Your task to perform on an android device: turn on showing notifications on the lock screen Image 0: 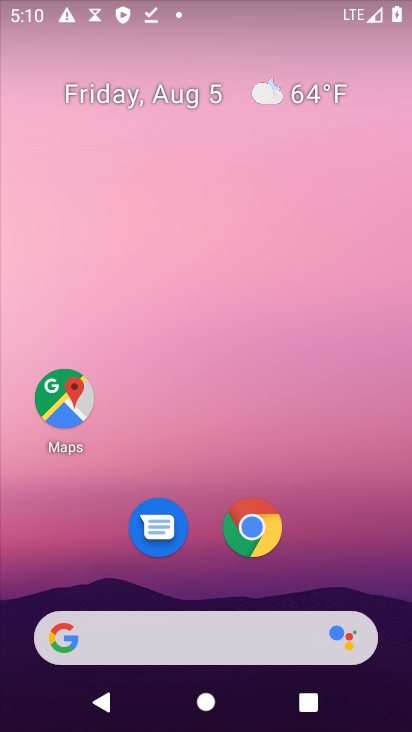
Step 0: click (270, 702)
Your task to perform on an android device: turn on showing notifications on the lock screen Image 1: 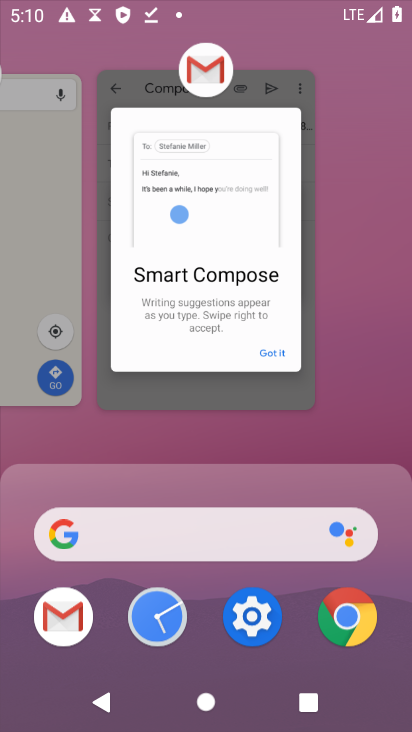
Step 1: click (224, 395)
Your task to perform on an android device: turn on showing notifications on the lock screen Image 2: 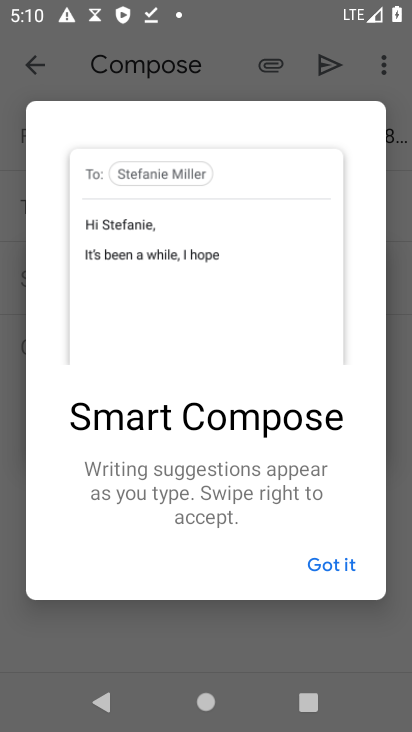
Step 2: press home button
Your task to perform on an android device: turn on showing notifications on the lock screen Image 3: 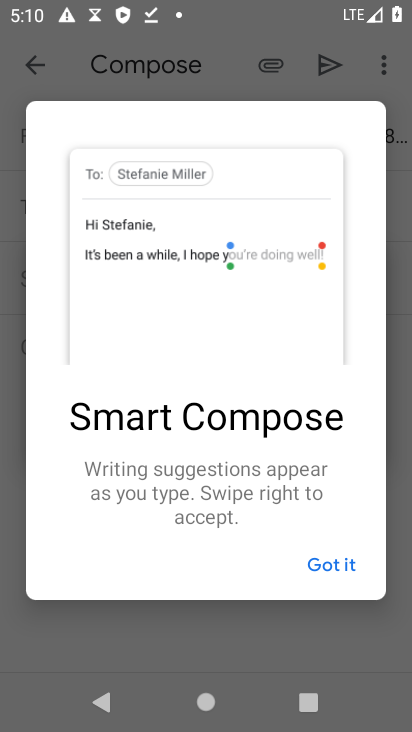
Step 3: press home button
Your task to perform on an android device: turn on showing notifications on the lock screen Image 4: 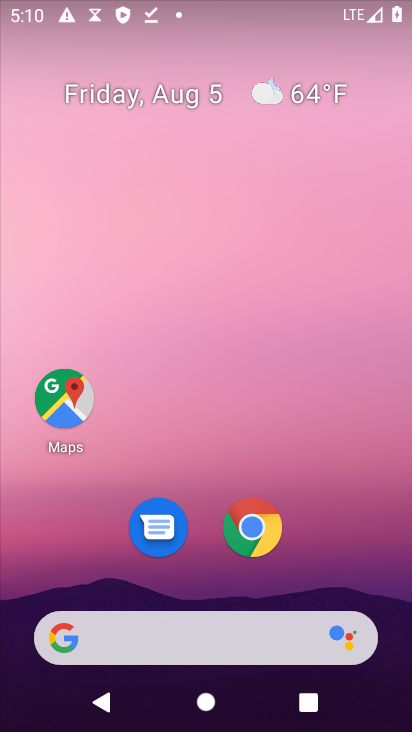
Step 4: drag from (222, 596) to (254, 182)
Your task to perform on an android device: turn on showing notifications on the lock screen Image 5: 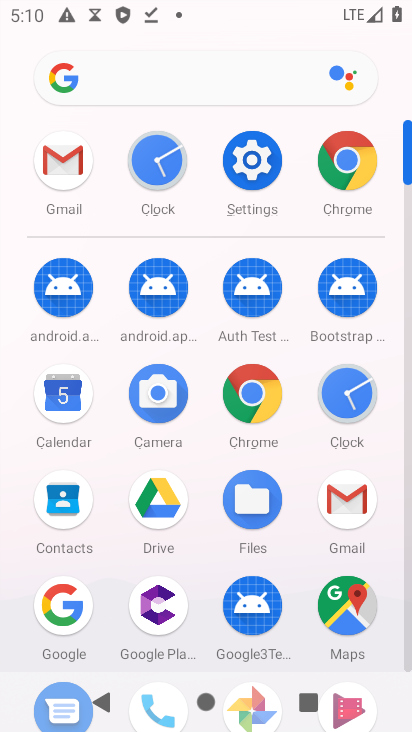
Step 5: click (252, 152)
Your task to perform on an android device: turn on showing notifications on the lock screen Image 6: 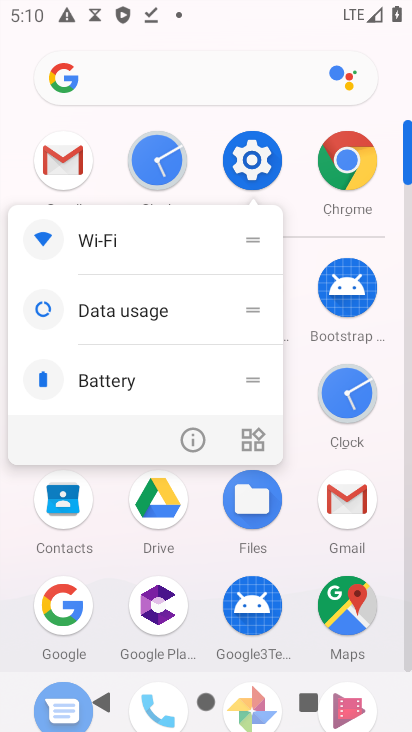
Step 6: click (193, 426)
Your task to perform on an android device: turn on showing notifications on the lock screen Image 7: 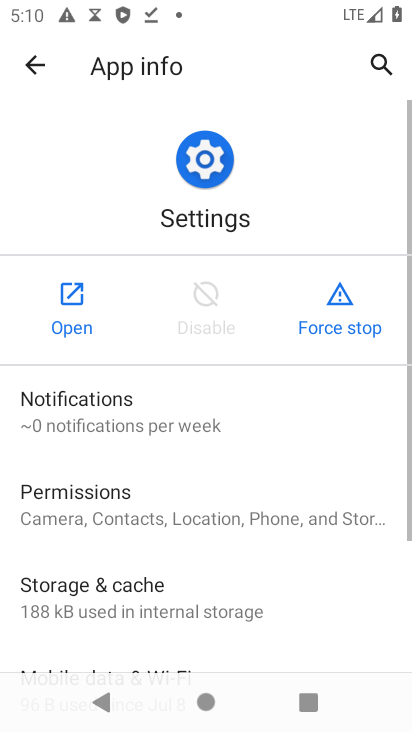
Step 7: click (87, 314)
Your task to perform on an android device: turn on showing notifications on the lock screen Image 8: 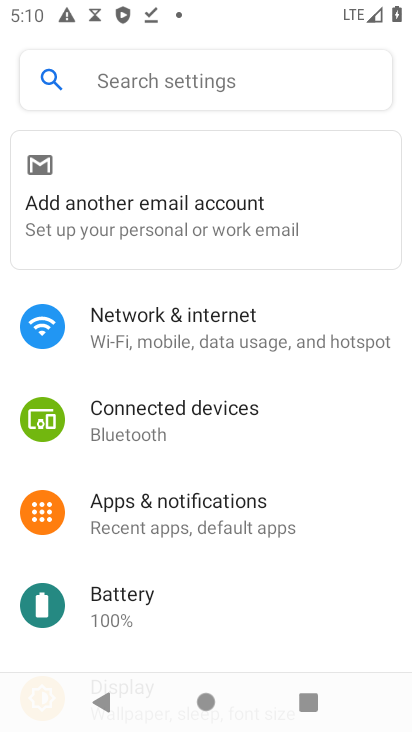
Step 8: drag from (174, 542) to (191, 176)
Your task to perform on an android device: turn on showing notifications on the lock screen Image 9: 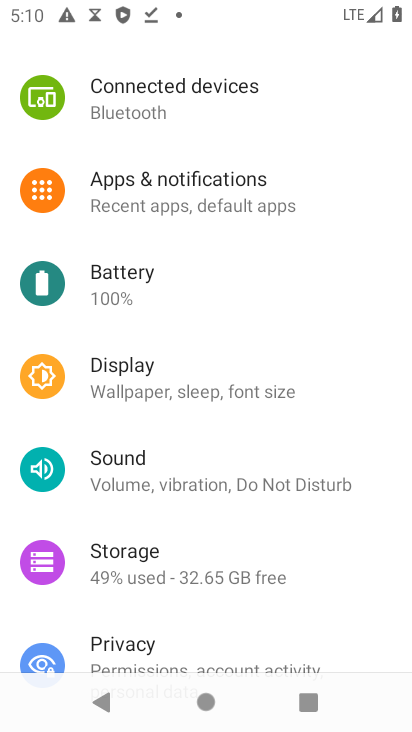
Step 9: click (183, 180)
Your task to perform on an android device: turn on showing notifications on the lock screen Image 10: 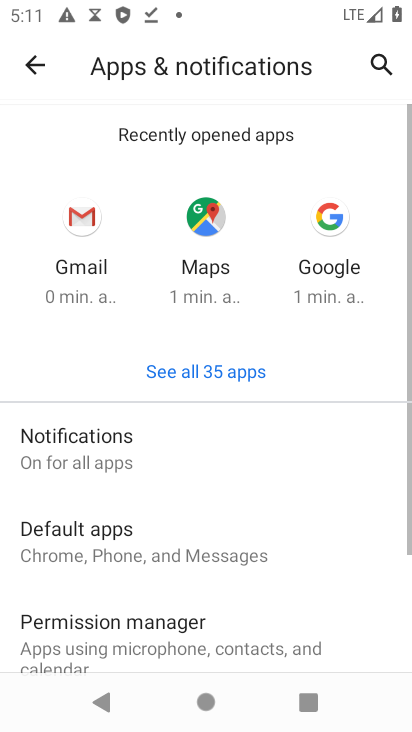
Step 10: click (138, 433)
Your task to perform on an android device: turn on showing notifications on the lock screen Image 11: 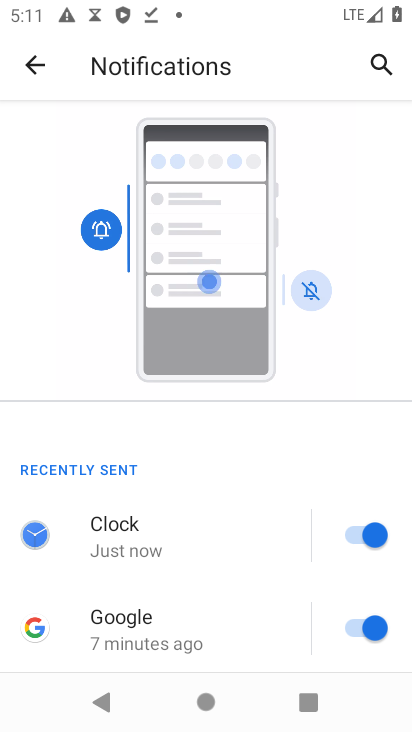
Step 11: drag from (206, 642) to (205, 401)
Your task to perform on an android device: turn on showing notifications on the lock screen Image 12: 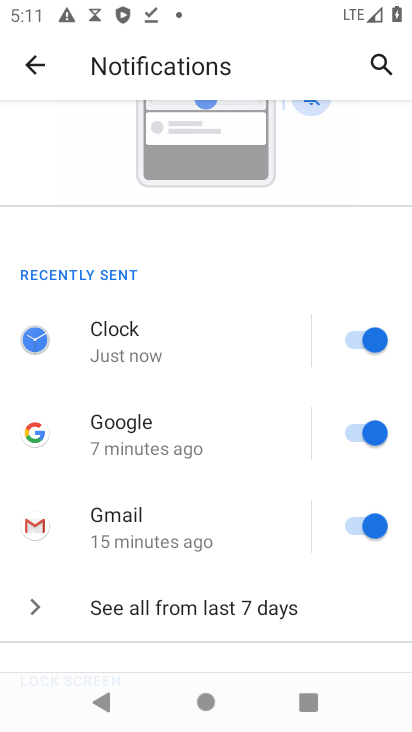
Step 12: drag from (222, 468) to (228, 406)
Your task to perform on an android device: turn on showing notifications on the lock screen Image 13: 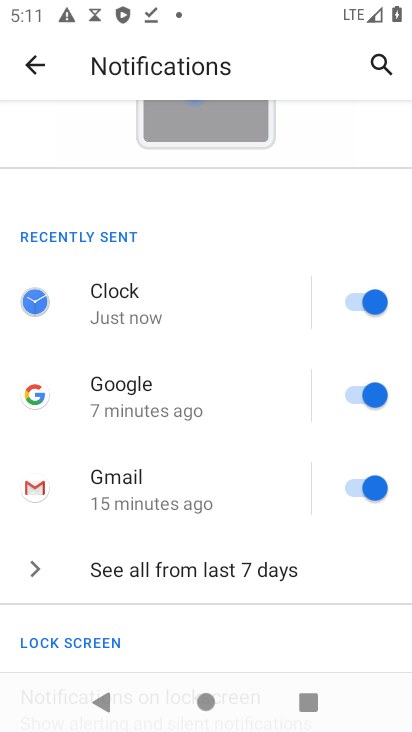
Step 13: drag from (207, 586) to (236, 338)
Your task to perform on an android device: turn on showing notifications on the lock screen Image 14: 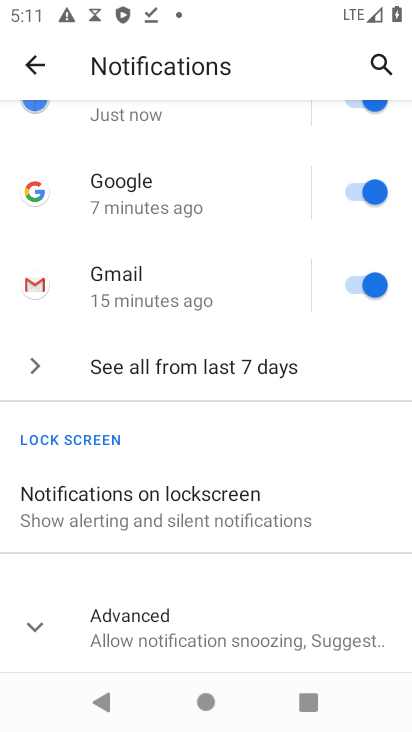
Step 14: drag from (181, 211) to (295, 696)
Your task to perform on an android device: turn on showing notifications on the lock screen Image 15: 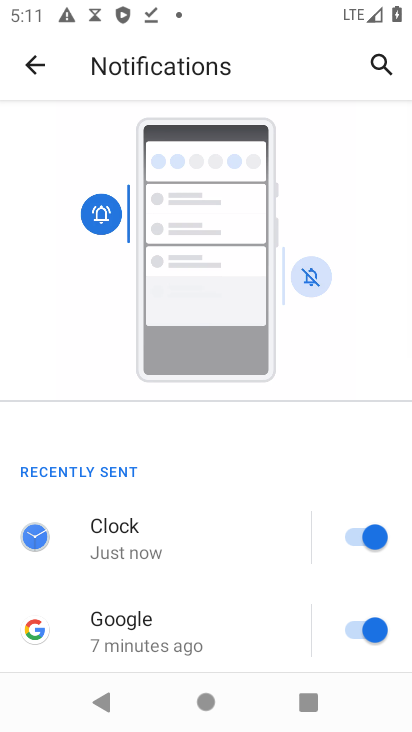
Step 15: drag from (207, 420) to (282, 135)
Your task to perform on an android device: turn on showing notifications on the lock screen Image 16: 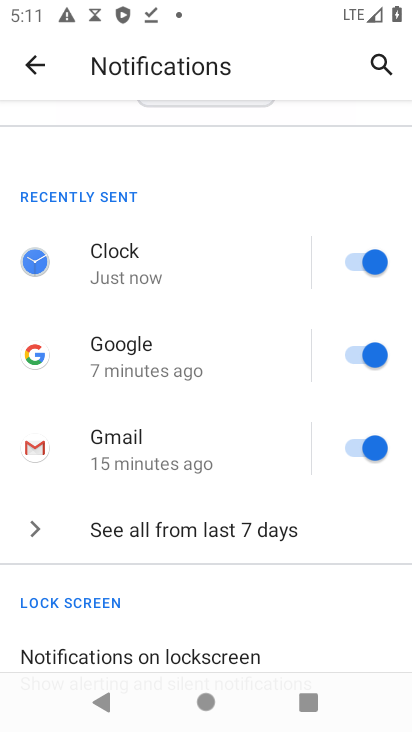
Step 16: drag from (209, 498) to (270, 73)
Your task to perform on an android device: turn on showing notifications on the lock screen Image 17: 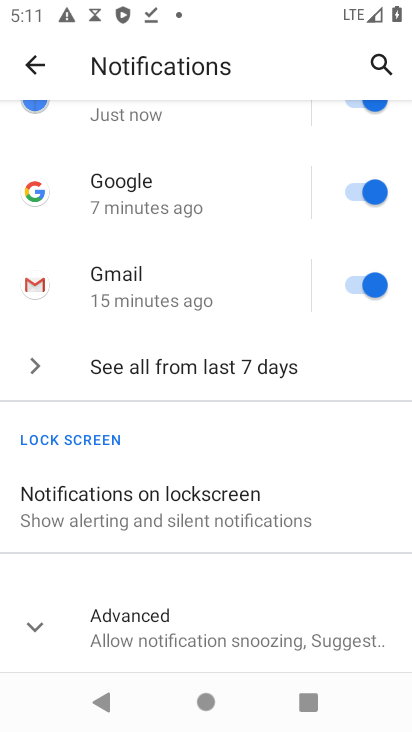
Step 17: drag from (219, 476) to (228, 420)
Your task to perform on an android device: turn on showing notifications on the lock screen Image 18: 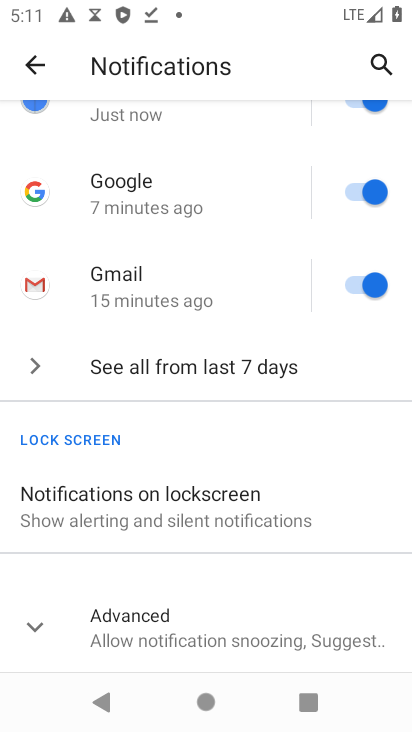
Step 18: drag from (220, 369) to (238, 723)
Your task to perform on an android device: turn on showing notifications on the lock screen Image 19: 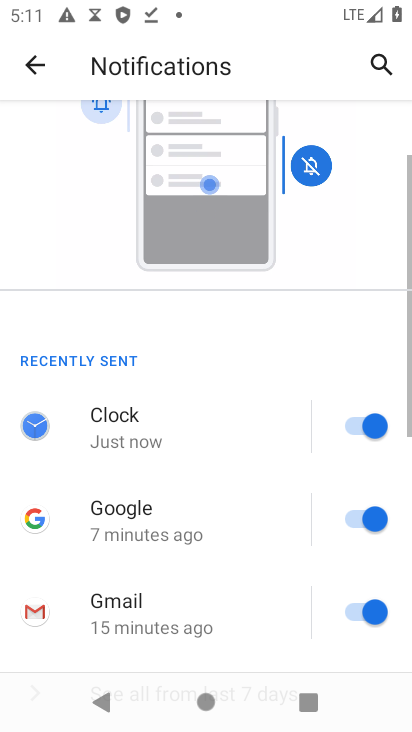
Step 19: drag from (249, 603) to (293, 198)
Your task to perform on an android device: turn on showing notifications on the lock screen Image 20: 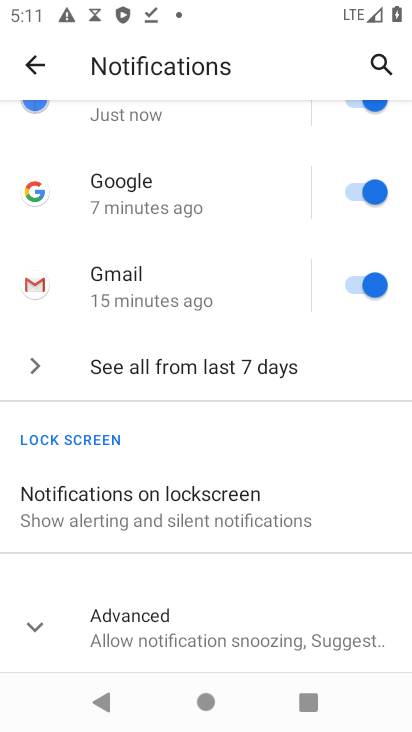
Step 20: click (171, 498)
Your task to perform on an android device: turn on showing notifications on the lock screen Image 21: 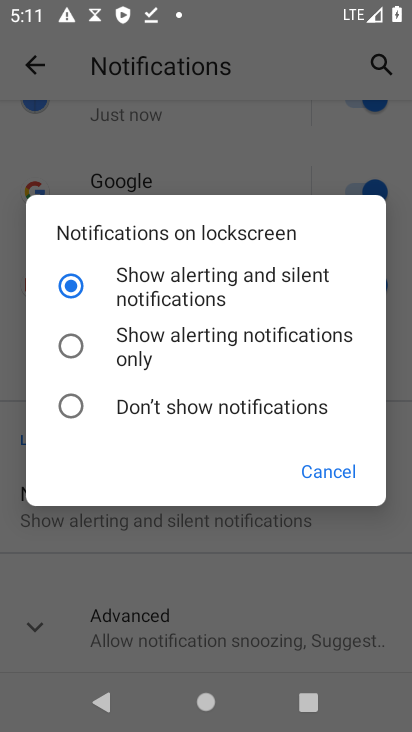
Step 21: drag from (216, 426) to (203, 289)
Your task to perform on an android device: turn on showing notifications on the lock screen Image 22: 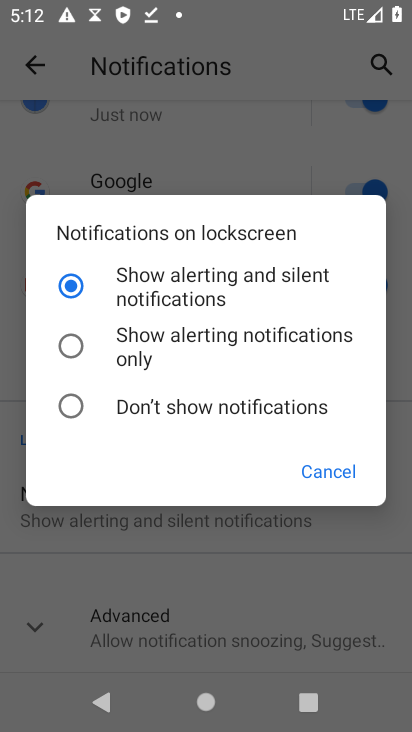
Step 22: click (86, 349)
Your task to perform on an android device: turn on showing notifications on the lock screen Image 23: 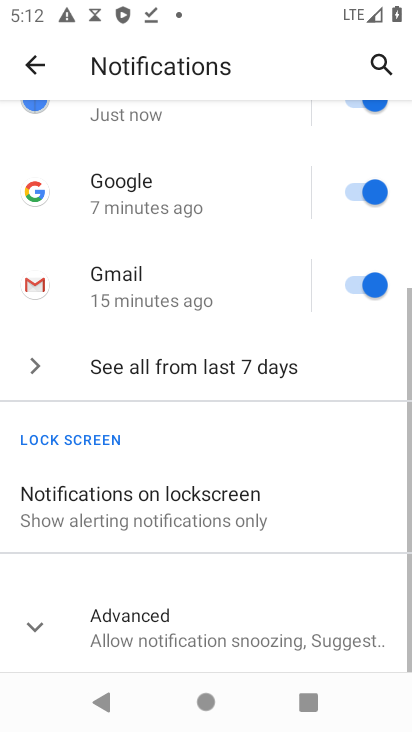
Step 23: task complete